Your task to perform on an android device: Go to Google maps Image 0: 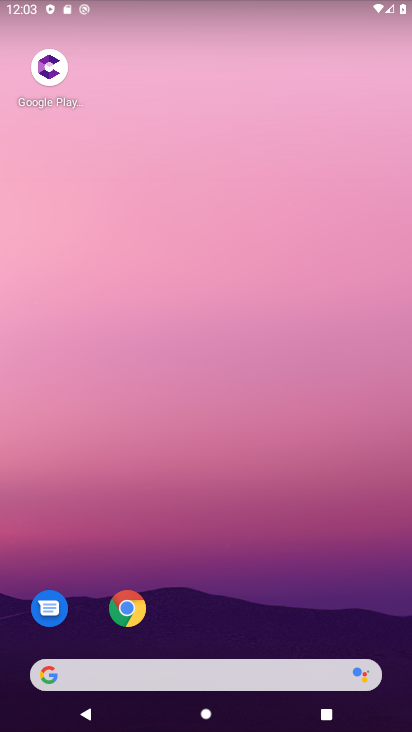
Step 0: drag from (257, 644) to (211, 161)
Your task to perform on an android device: Go to Google maps Image 1: 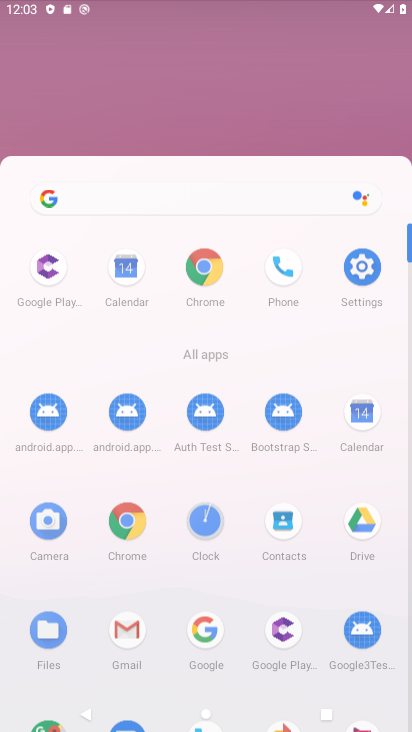
Step 1: click (209, 271)
Your task to perform on an android device: Go to Google maps Image 2: 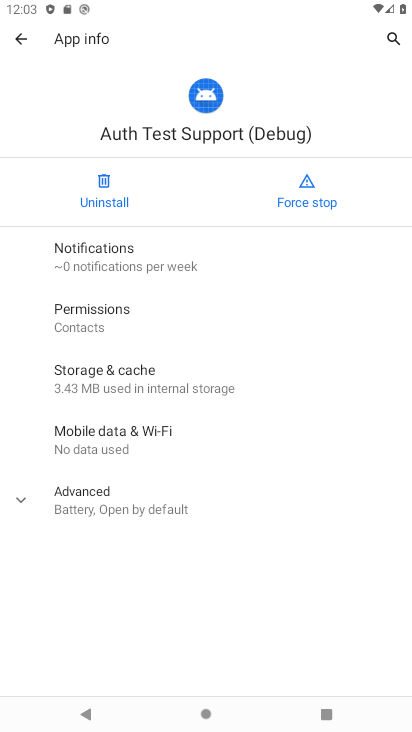
Step 2: click (17, 43)
Your task to perform on an android device: Go to Google maps Image 3: 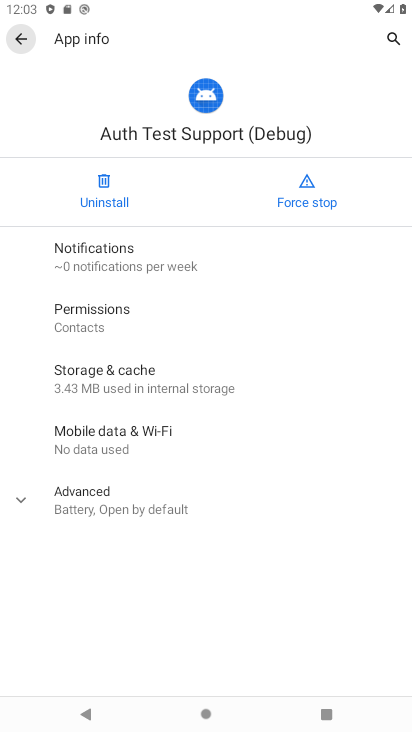
Step 3: click (20, 36)
Your task to perform on an android device: Go to Google maps Image 4: 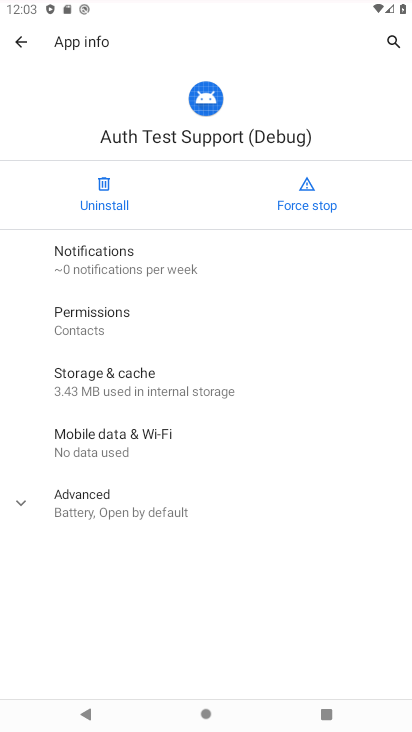
Step 4: click (20, 36)
Your task to perform on an android device: Go to Google maps Image 5: 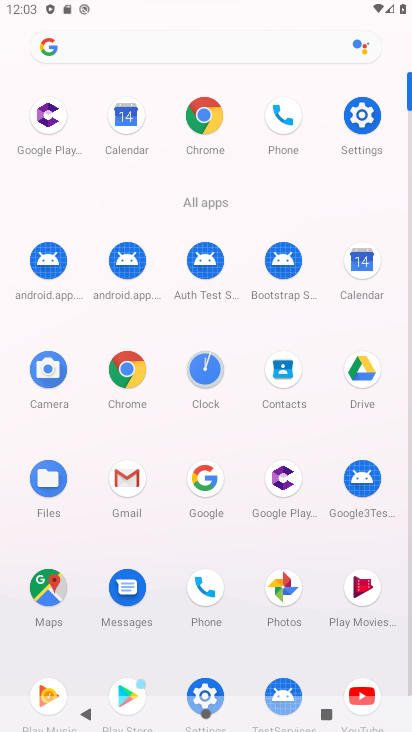
Step 5: click (205, 473)
Your task to perform on an android device: Go to Google maps Image 6: 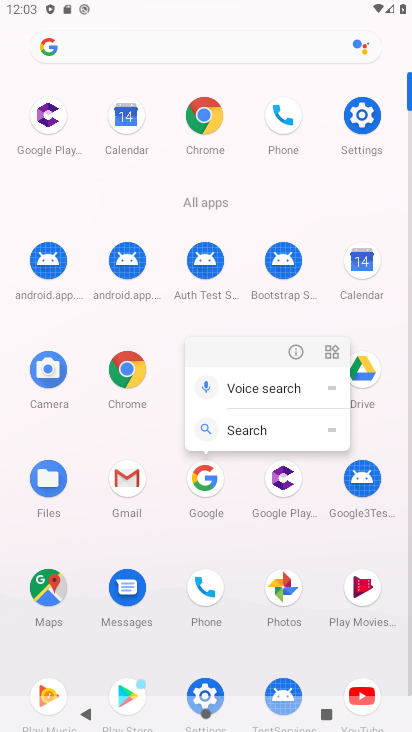
Step 6: click (202, 478)
Your task to perform on an android device: Go to Google maps Image 7: 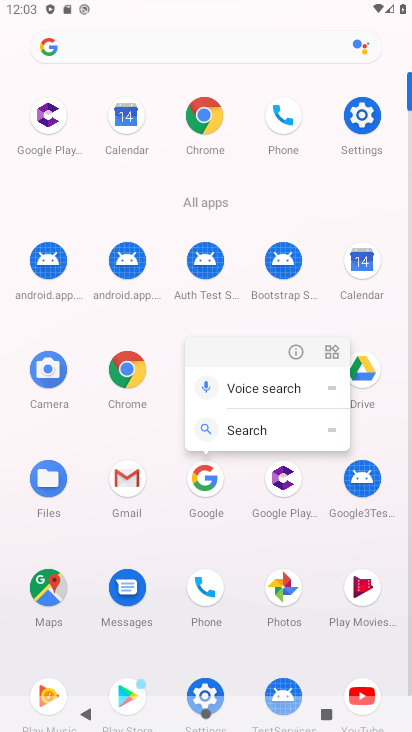
Step 7: click (208, 475)
Your task to perform on an android device: Go to Google maps Image 8: 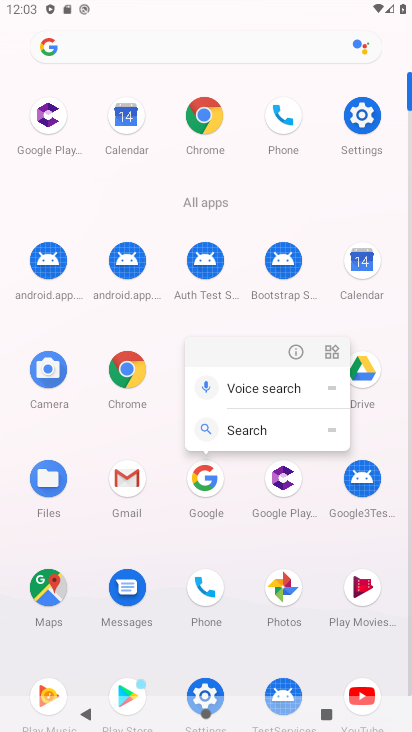
Step 8: click (208, 475)
Your task to perform on an android device: Go to Google maps Image 9: 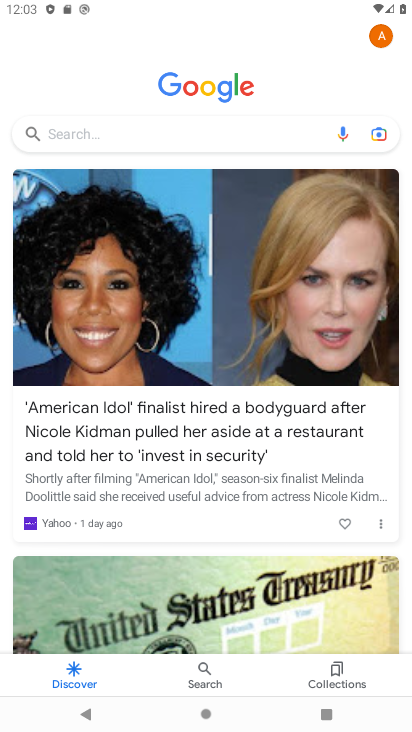
Step 9: press back button
Your task to perform on an android device: Go to Google maps Image 10: 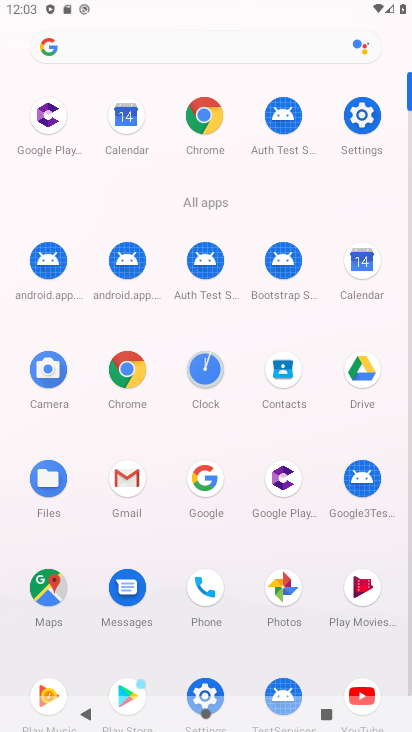
Step 10: click (43, 594)
Your task to perform on an android device: Go to Google maps Image 11: 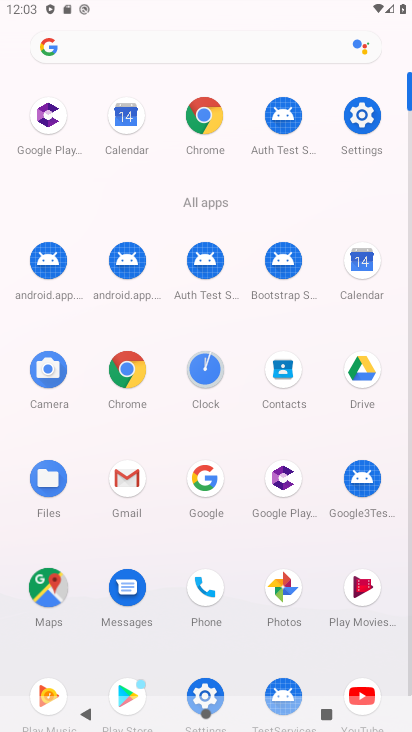
Step 11: click (44, 590)
Your task to perform on an android device: Go to Google maps Image 12: 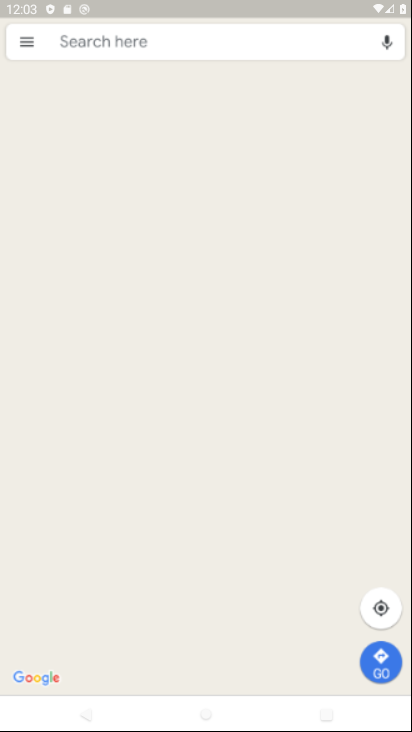
Step 12: click (44, 590)
Your task to perform on an android device: Go to Google maps Image 13: 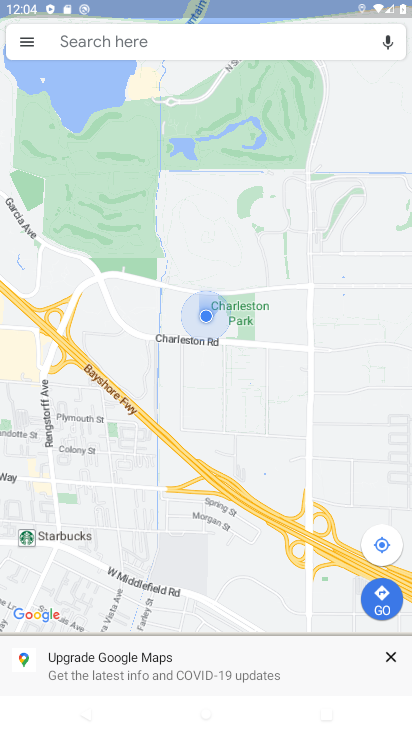
Step 13: task complete